Your task to perform on an android device: Open CNN.com Image 0: 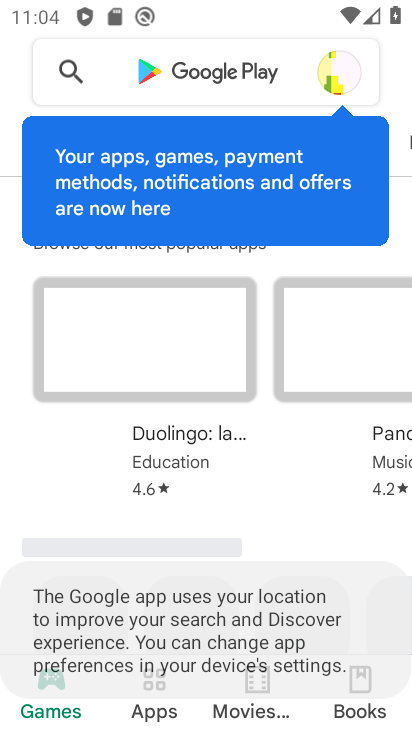
Step 0: press home button
Your task to perform on an android device: Open CNN.com Image 1: 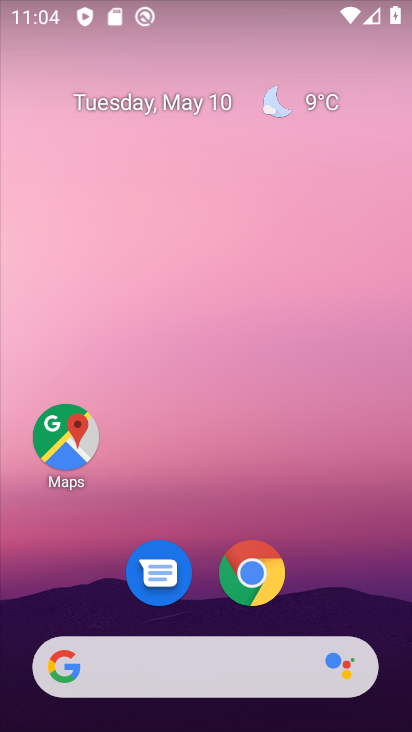
Step 1: drag from (196, 613) to (274, 228)
Your task to perform on an android device: Open CNN.com Image 2: 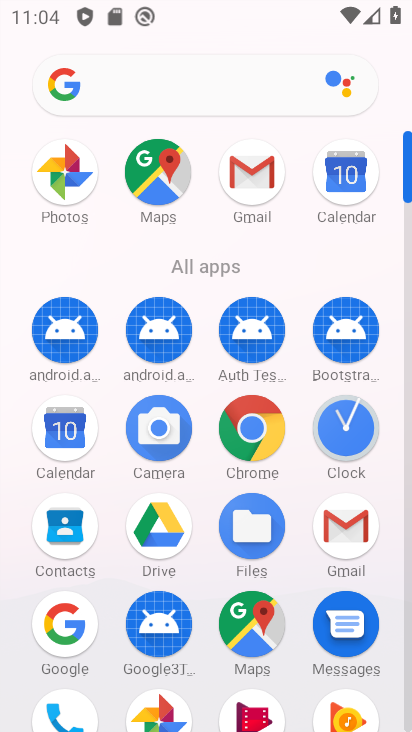
Step 2: click (261, 433)
Your task to perform on an android device: Open CNN.com Image 3: 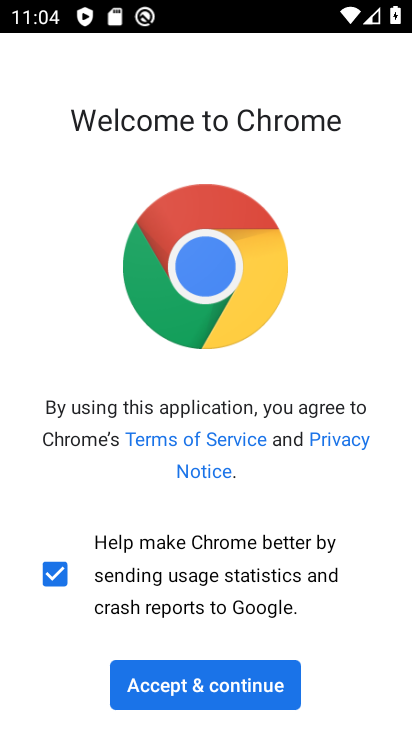
Step 3: click (192, 681)
Your task to perform on an android device: Open CNN.com Image 4: 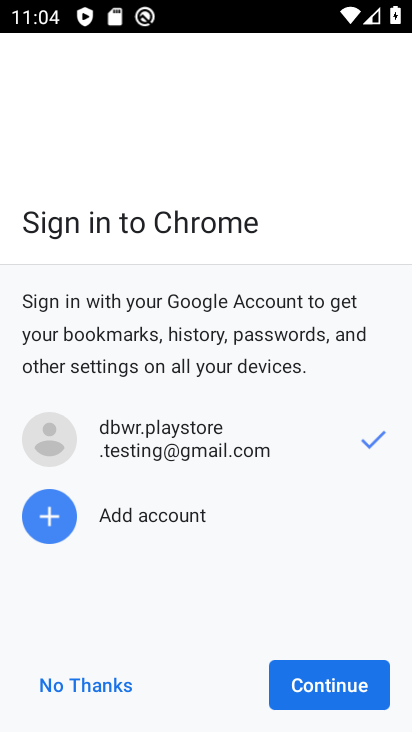
Step 4: click (320, 682)
Your task to perform on an android device: Open CNN.com Image 5: 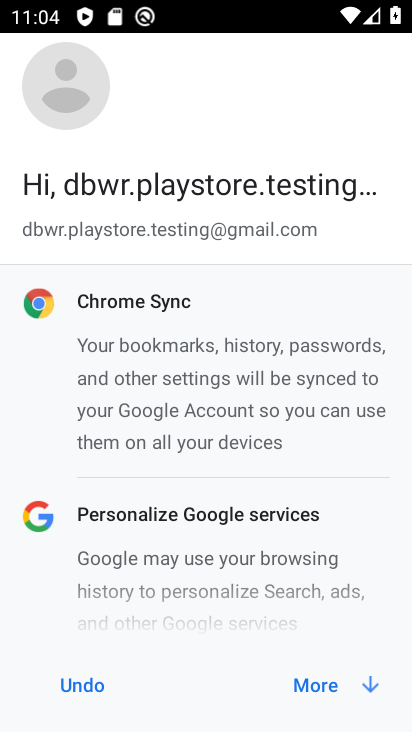
Step 5: click (309, 688)
Your task to perform on an android device: Open CNN.com Image 6: 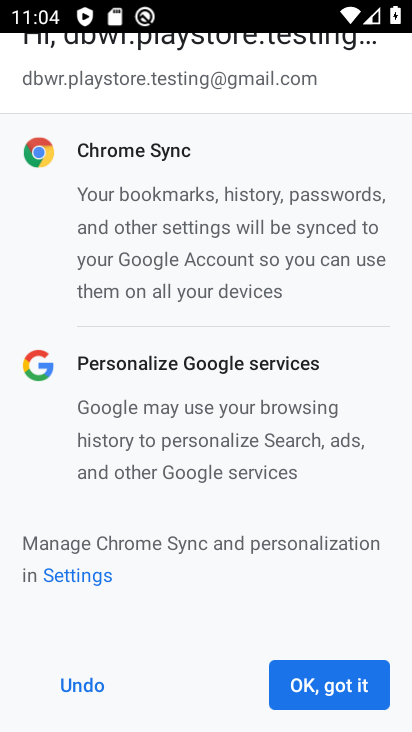
Step 6: click (321, 685)
Your task to perform on an android device: Open CNN.com Image 7: 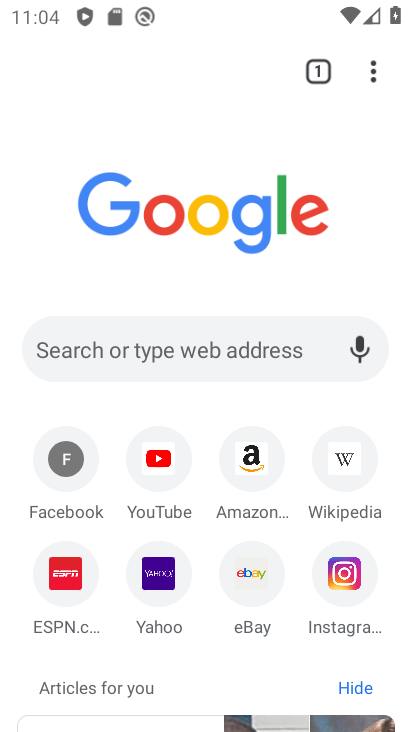
Step 7: click (143, 351)
Your task to perform on an android device: Open CNN.com Image 8: 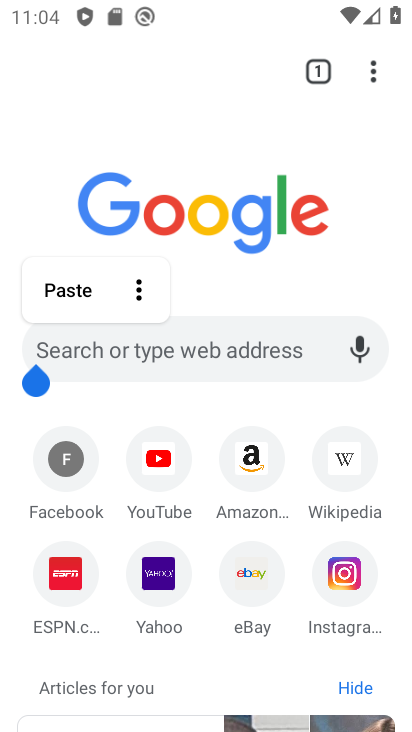
Step 8: click (220, 355)
Your task to perform on an android device: Open CNN.com Image 9: 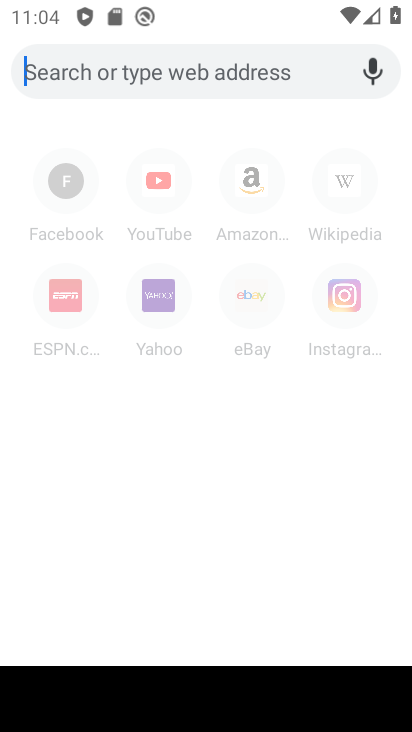
Step 9: type "cnn.com"
Your task to perform on an android device: Open CNN.com Image 10: 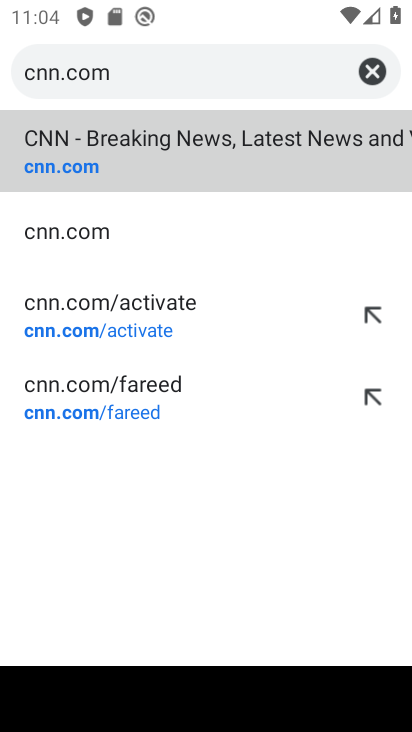
Step 10: click (143, 160)
Your task to perform on an android device: Open CNN.com Image 11: 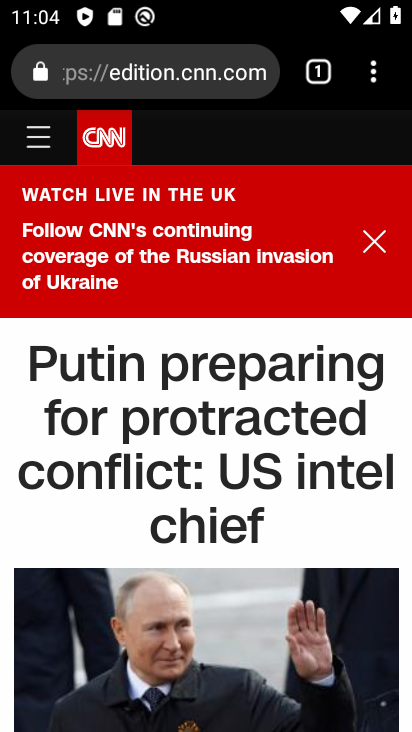
Step 11: task complete